Your task to perform on an android device: open sync settings in chrome Image 0: 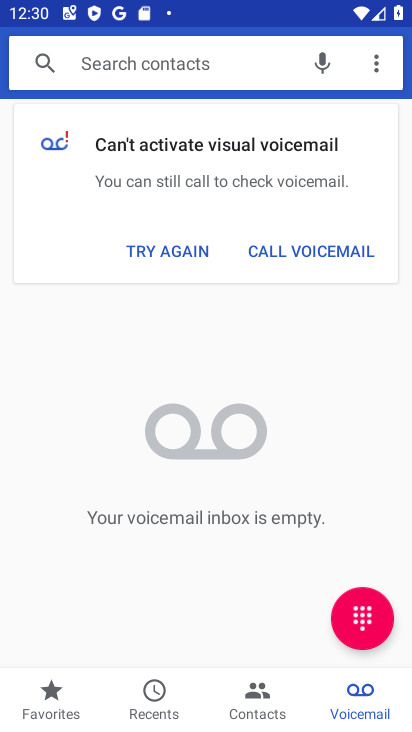
Step 0: drag from (313, 539) to (160, 70)
Your task to perform on an android device: open sync settings in chrome Image 1: 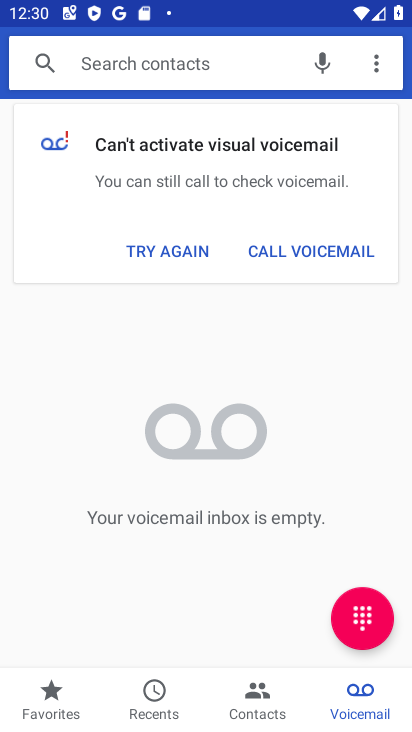
Step 1: press home button
Your task to perform on an android device: open sync settings in chrome Image 2: 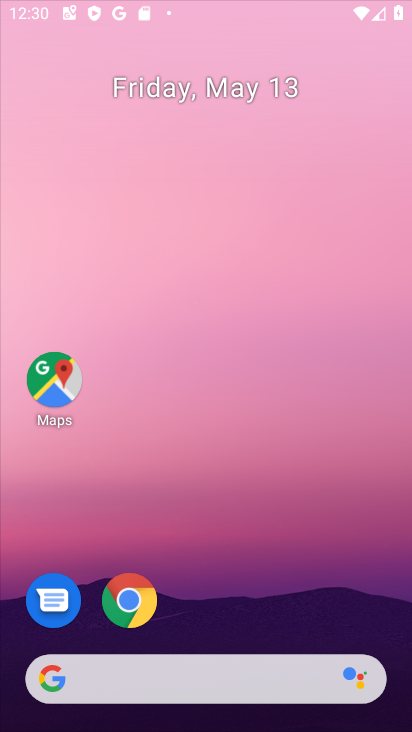
Step 2: drag from (206, 618) to (178, 129)
Your task to perform on an android device: open sync settings in chrome Image 3: 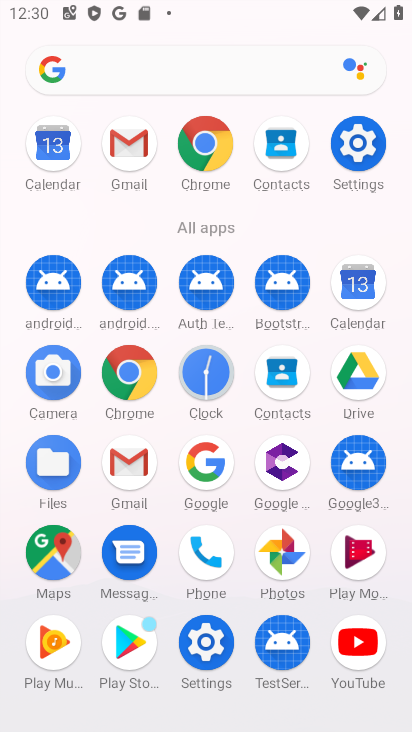
Step 3: click (116, 361)
Your task to perform on an android device: open sync settings in chrome Image 4: 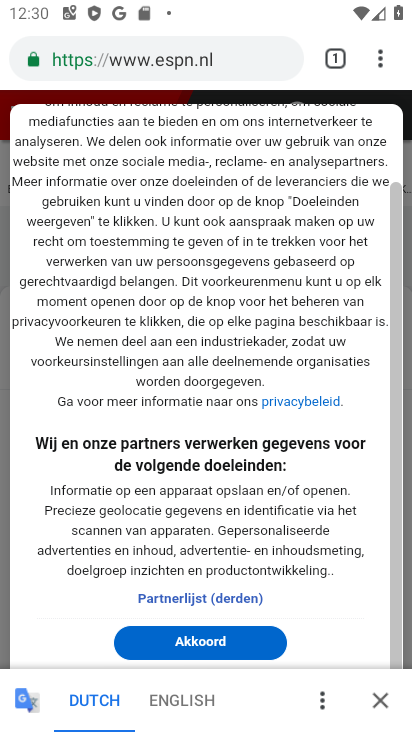
Step 4: drag from (234, 576) to (214, 359)
Your task to perform on an android device: open sync settings in chrome Image 5: 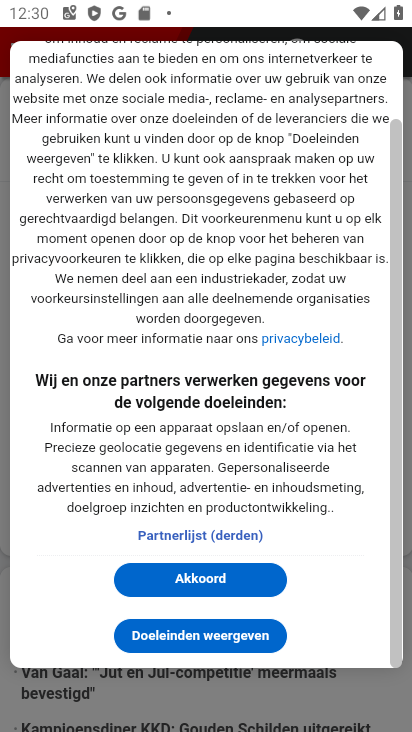
Step 5: drag from (221, 155) to (288, 552)
Your task to perform on an android device: open sync settings in chrome Image 6: 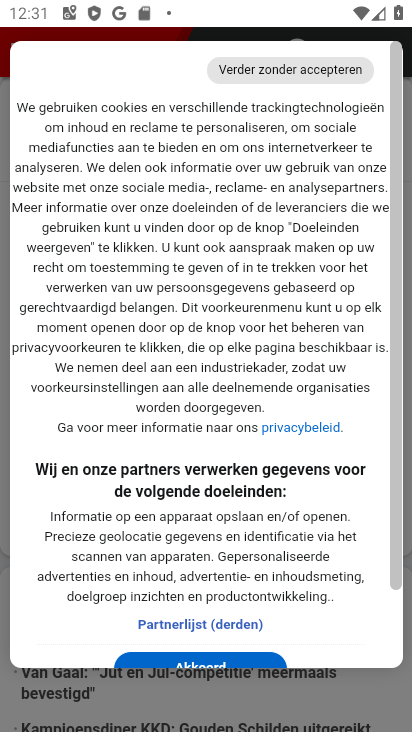
Step 6: press home button
Your task to perform on an android device: open sync settings in chrome Image 7: 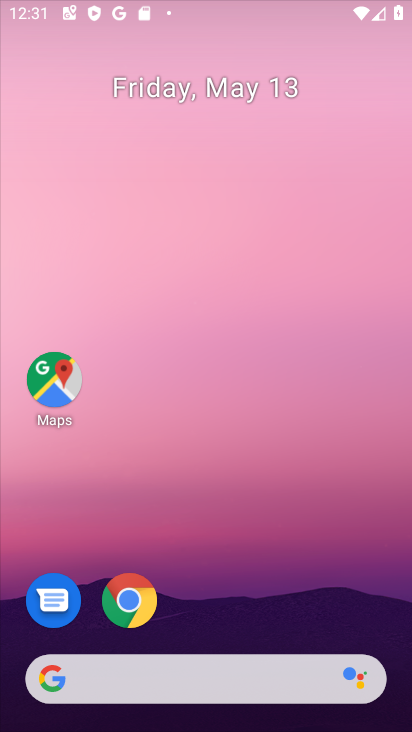
Step 7: drag from (324, 538) to (319, 75)
Your task to perform on an android device: open sync settings in chrome Image 8: 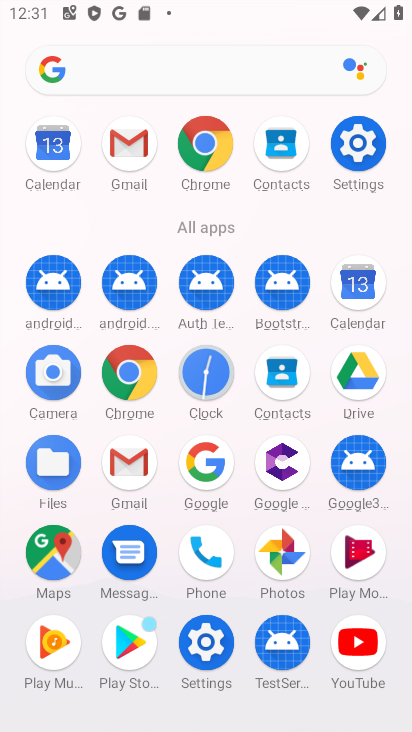
Step 8: click (204, 135)
Your task to perform on an android device: open sync settings in chrome Image 9: 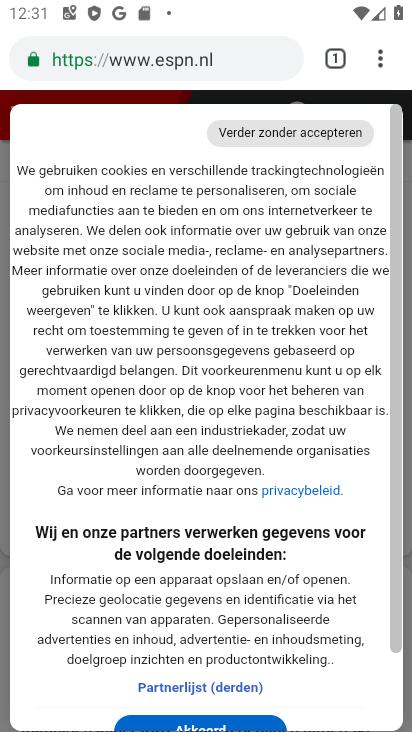
Step 9: drag from (248, 535) to (253, 69)
Your task to perform on an android device: open sync settings in chrome Image 10: 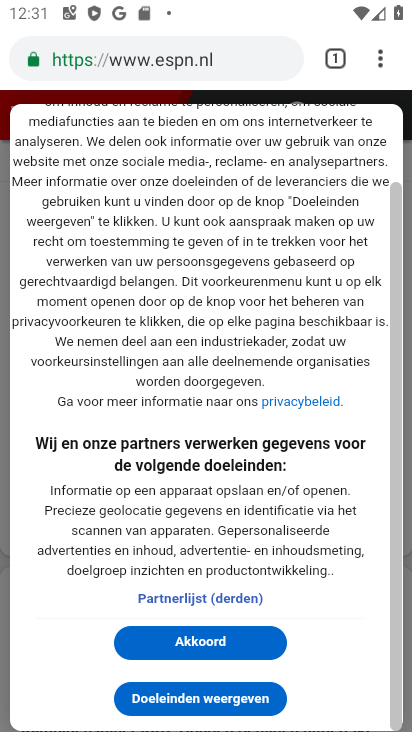
Step 10: drag from (317, 469) to (323, 224)
Your task to perform on an android device: open sync settings in chrome Image 11: 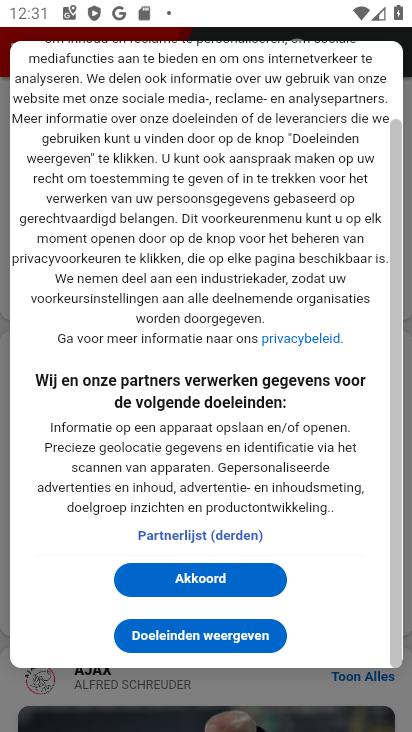
Step 11: drag from (320, 100) to (399, 476)
Your task to perform on an android device: open sync settings in chrome Image 12: 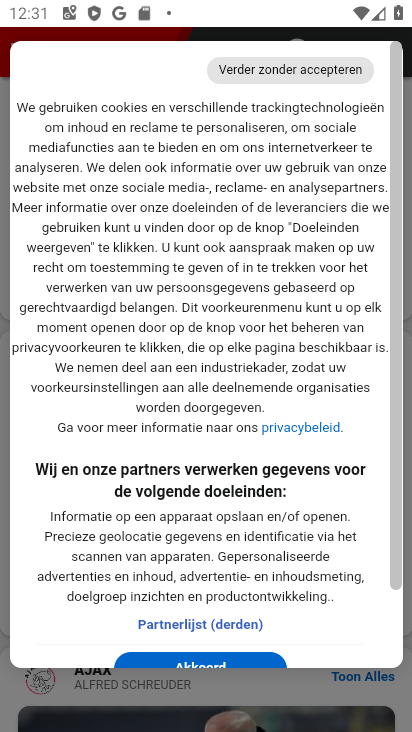
Step 12: drag from (301, 133) to (412, 512)
Your task to perform on an android device: open sync settings in chrome Image 13: 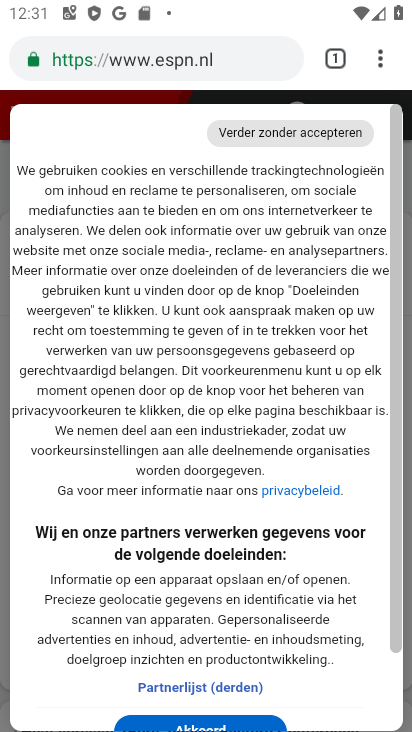
Step 13: click (381, 50)
Your task to perform on an android device: open sync settings in chrome Image 14: 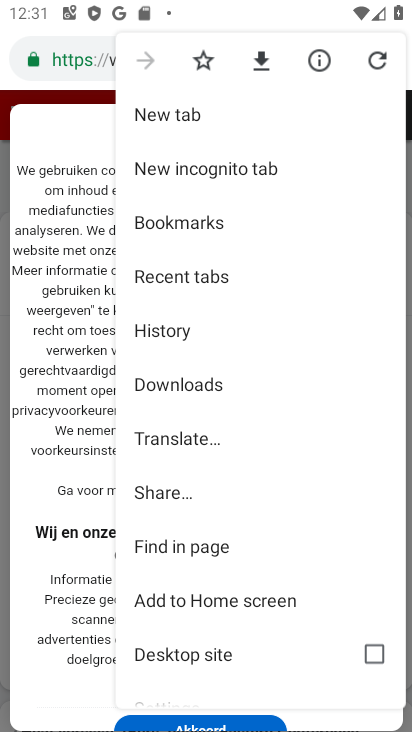
Step 14: drag from (280, 558) to (289, 133)
Your task to perform on an android device: open sync settings in chrome Image 15: 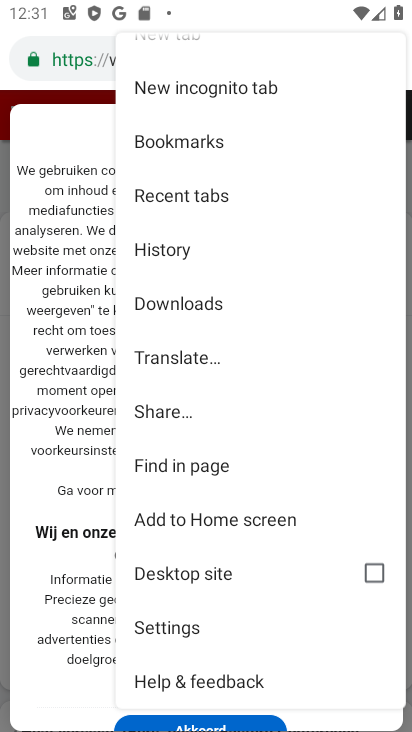
Step 15: click (259, 623)
Your task to perform on an android device: open sync settings in chrome Image 16: 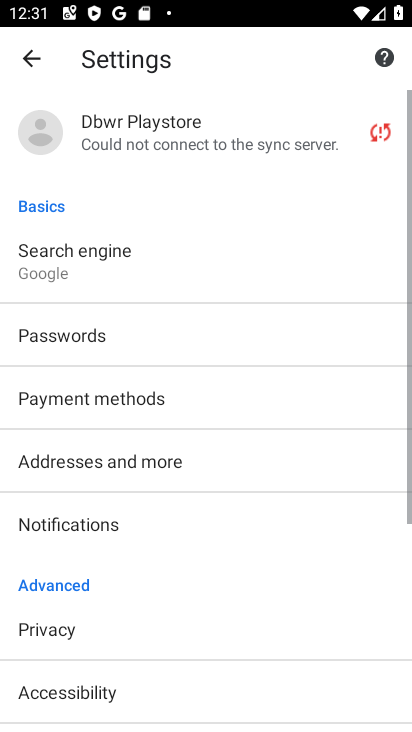
Step 16: drag from (227, 605) to (217, 4)
Your task to perform on an android device: open sync settings in chrome Image 17: 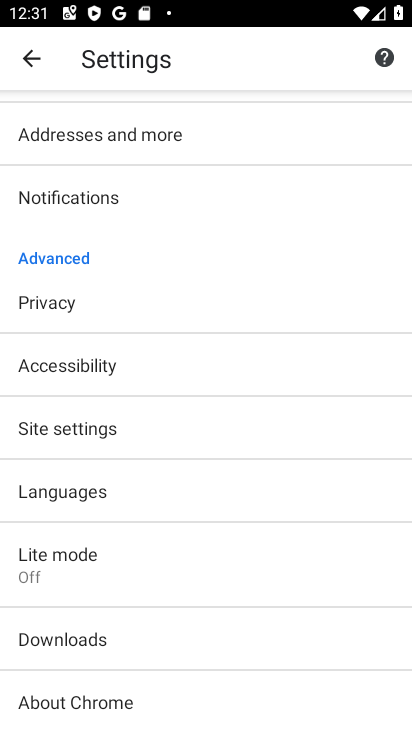
Step 17: drag from (147, 724) to (140, 423)
Your task to perform on an android device: open sync settings in chrome Image 18: 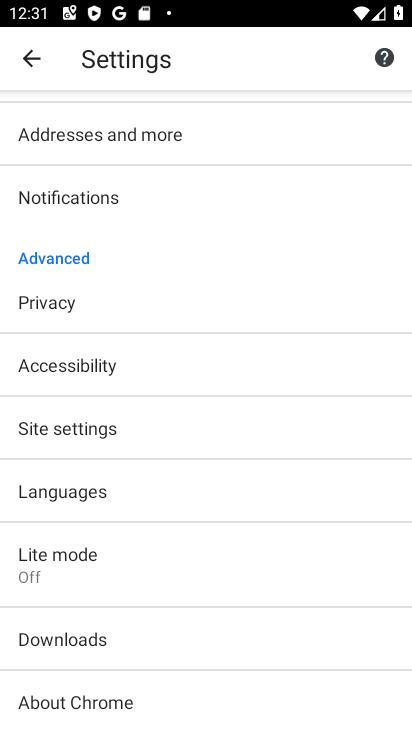
Step 18: click (116, 433)
Your task to perform on an android device: open sync settings in chrome Image 19: 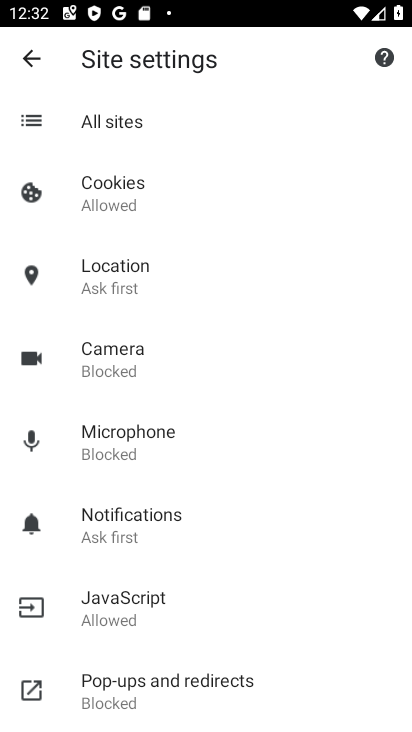
Step 19: drag from (184, 657) to (185, 272)
Your task to perform on an android device: open sync settings in chrome Image 20: 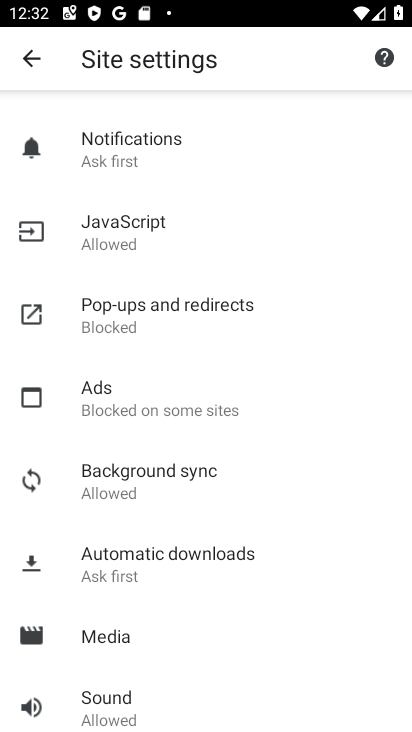
Step 20: click (221, 483)
Your task to perform on an android device: open sync settings in chrome Image 21: 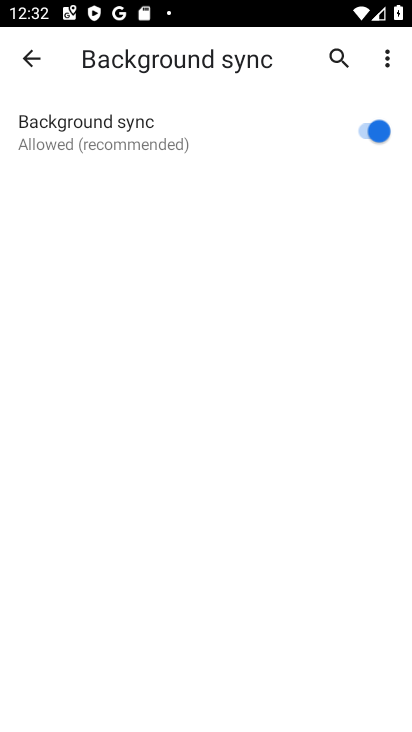
Step 21: task complete